Your task to perform on an android device: Open Youtube and go to "Your channel" Image 0: 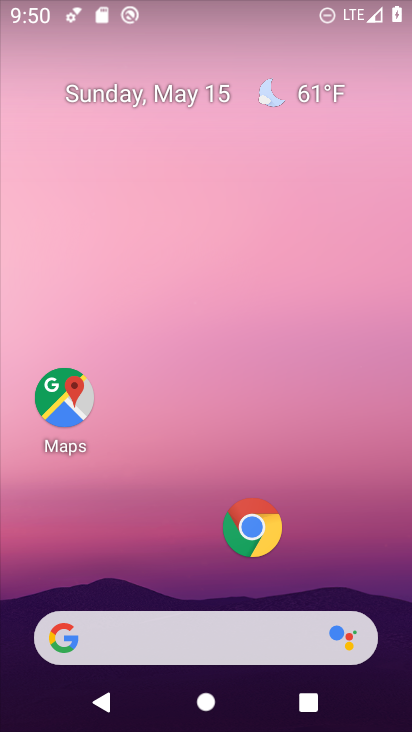
Step 0: drag from (197, 582) to (234, 41)
Your task to perform on an android device: Open Youtube and go to "Your channel" Image 1: 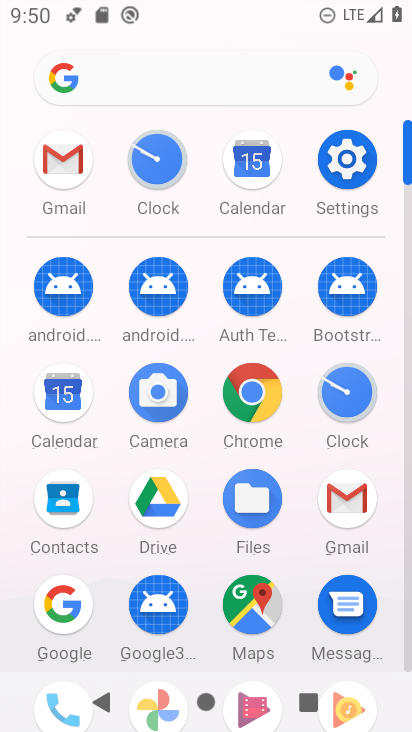
Step 1: drag from (205, 574) to (219, 24)
Your task to perform on an android device: Open Youtube and go to "Your channel" Image 2: 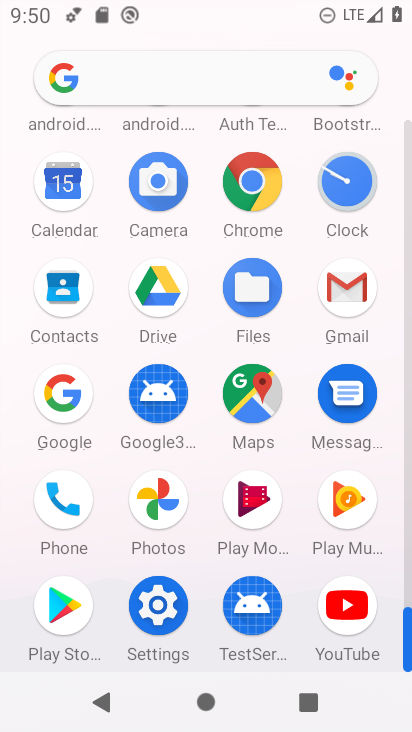
Step 2: click (340, 595)
Your task to perform on an android device: Open Youtube and go to "Your channel" Image 3: 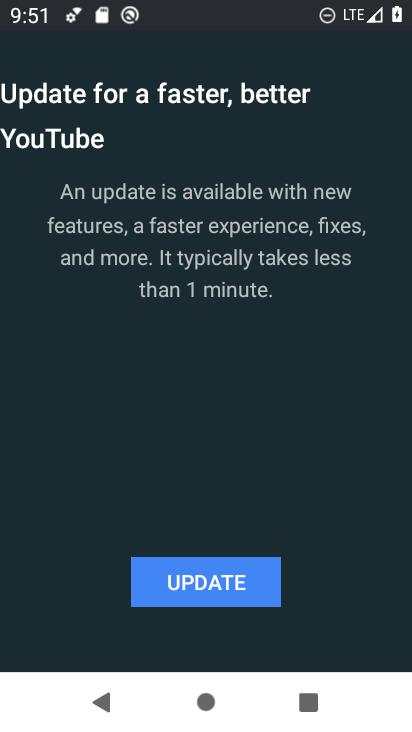
Step 3: click (214, 590)
Your task to perform on an android device: Open Youtube and go to "Your channel" Image 4: 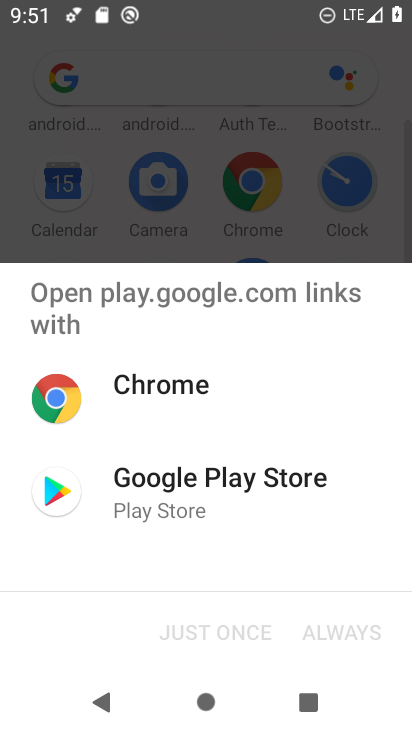
Step 4: click (122, 502)
Your task to perform on an android device: Open Youtube and go to "Your channel" Image 5: 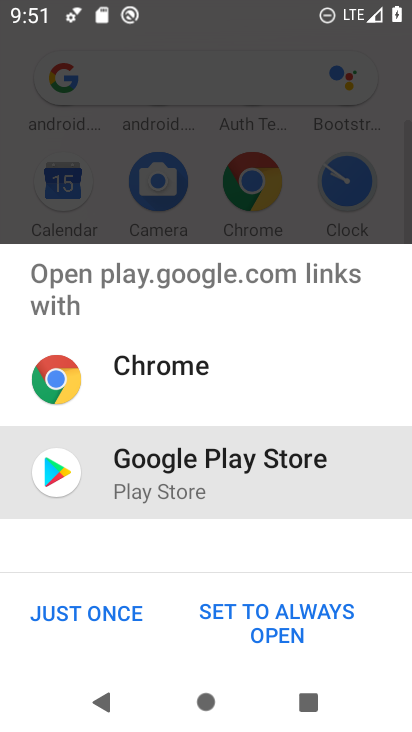
Step 5: click (115, 616)
Your task to perform on an android device: Open Youtube and go to "Your channel" Image 6: 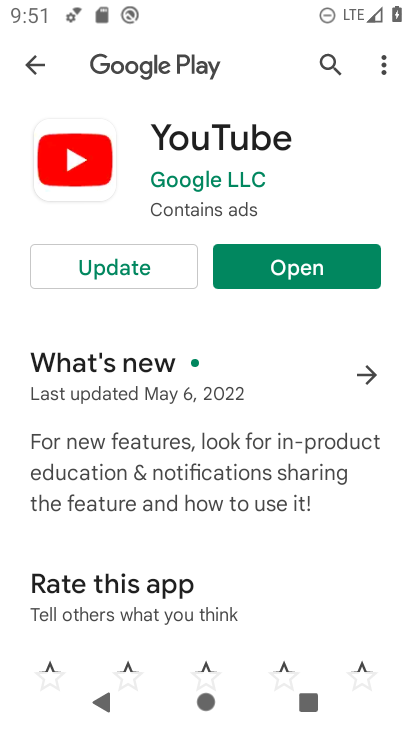
Step 6: click (95, 260)
Your task to perform on an android device: Open Youtube and go to "Your channel" Image 7: 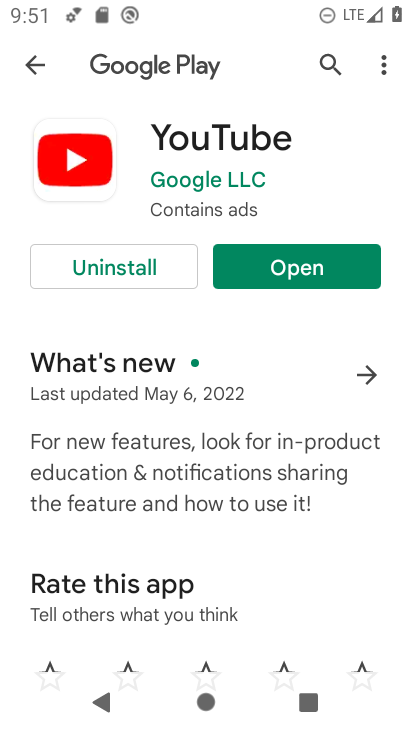
Step 7: click (291, 278)
Your task to perform on an android device: Open Youtube and go to "Your channel" Image 8: 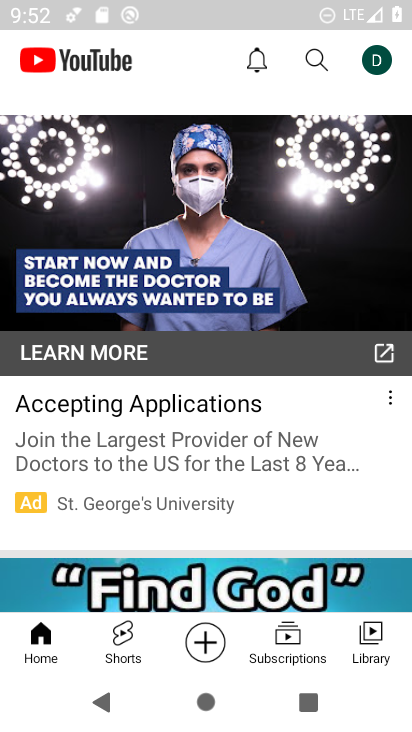
Step 8: click (374, 56)
Your task to perform on an android device: Open Youtube and go to "Your channel" Image 9: 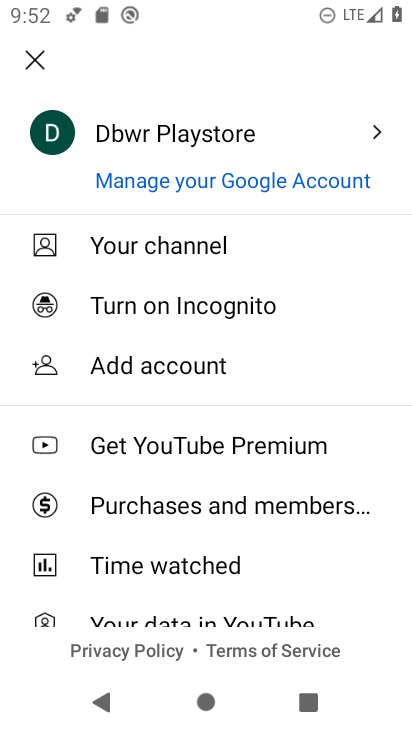
Step 9: click (133, 246)
Your task to perform on an android device: Open Youtube and go to "Your channel" Image 10: 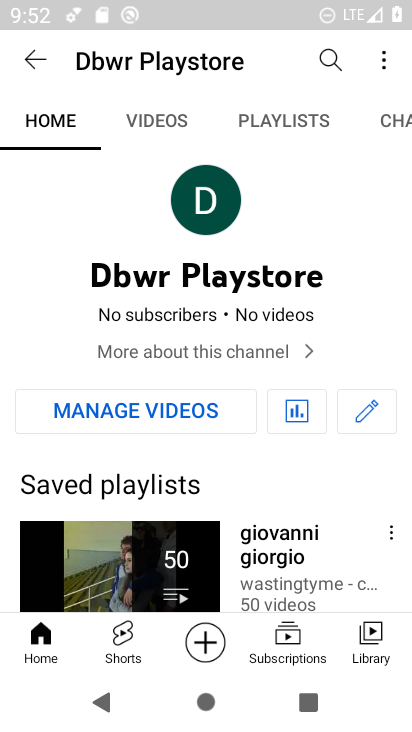
Step 10: task complete